Your task to perform on an android device: open chrome privacy settings Image 0: 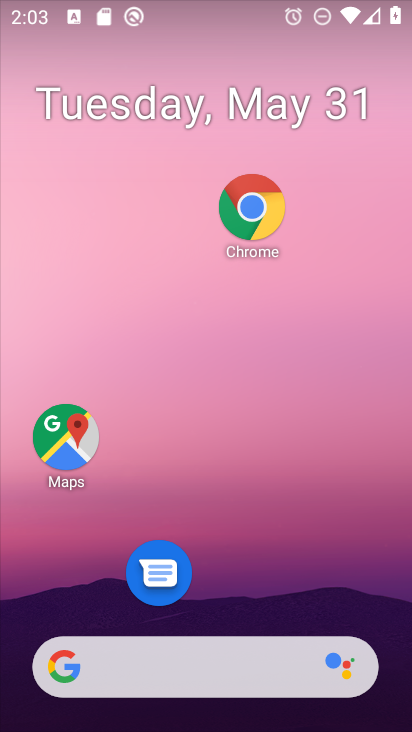
Step 0: drag from (238, 661) to (239, 161)
Your task to perform on an android device: open chrome privacy settings Image 1: 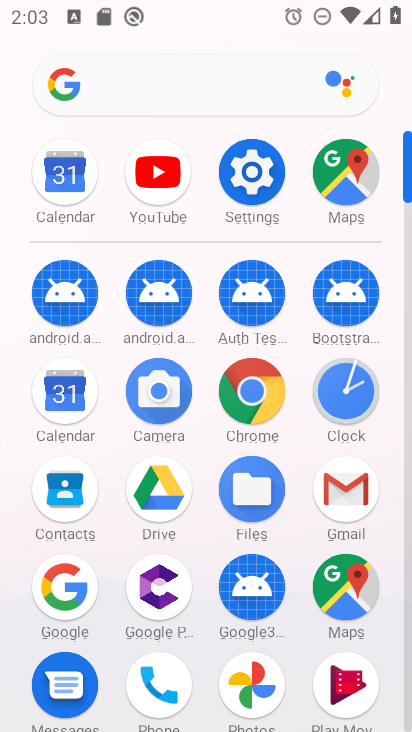
Step 1: click (257, 398)
Your task to perform on an android device: open chrome privacy settings Image 2: 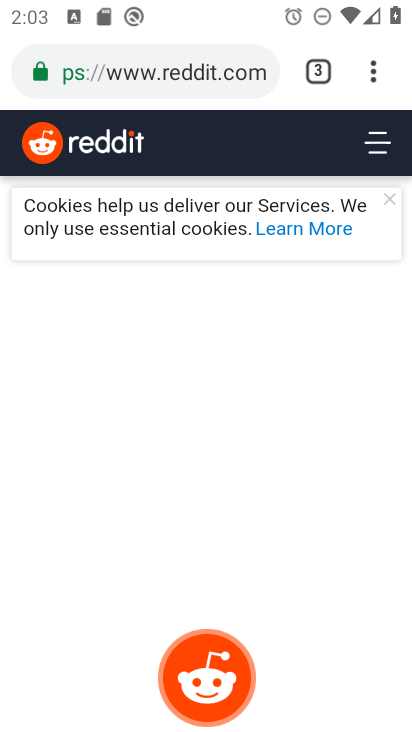
Step 2: click (383, 75)
Your task to perform on an android device: open chrome privacy settings Image 3: 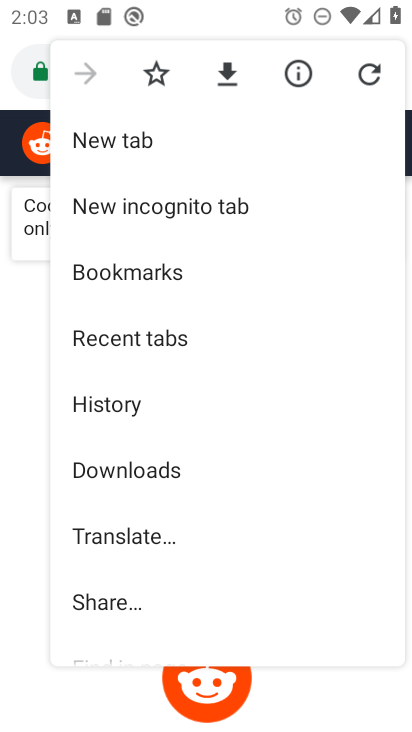
Step 3: drag from (235, 491) to (263, 339)
Your task to perform on an android device: open chrome privacy settings Image 4: 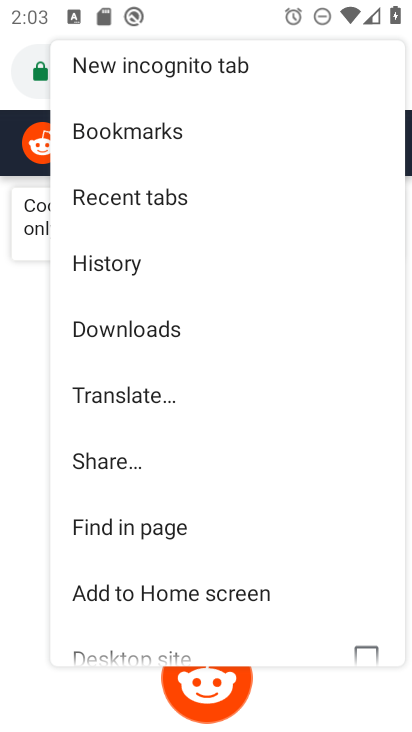
Step 4: drag from (229, 467) to (235, 368)
Your task to perform on an android device: open chrome privacy settings Image 5: 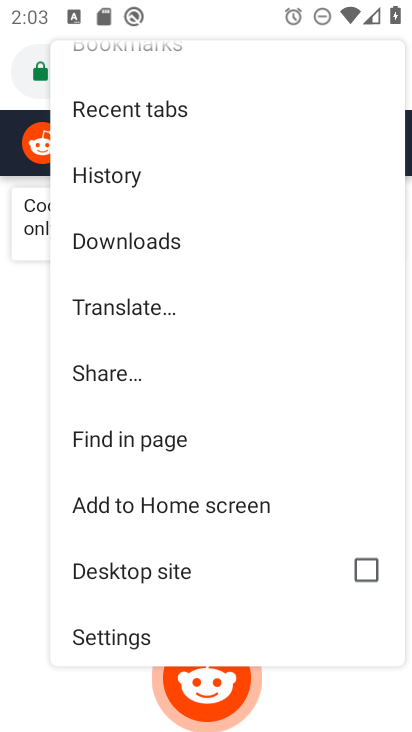
Step 5: drag from (159, 633) to (225, 400)
Your task to perform on an android device: open chrome privacy settings Image 6: 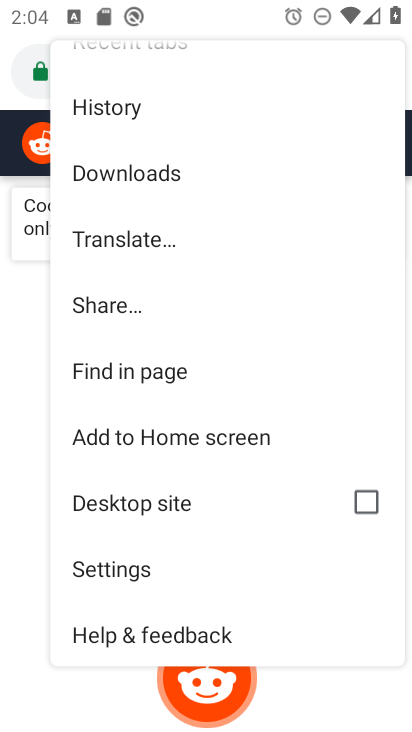
Step 6: click (130, 564)
Your task to perform on an android device: open chrome privacy settings Image 7: 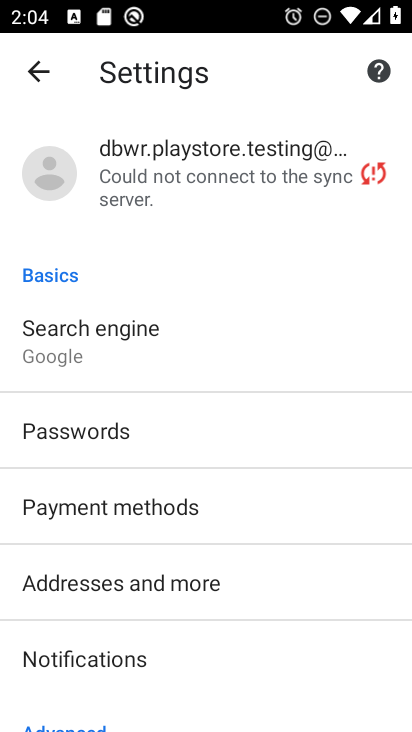
Step 7: drag from (132, 551) to (129, 267)
Your task to perform on an android device: open chrome privacy settings Image 8: 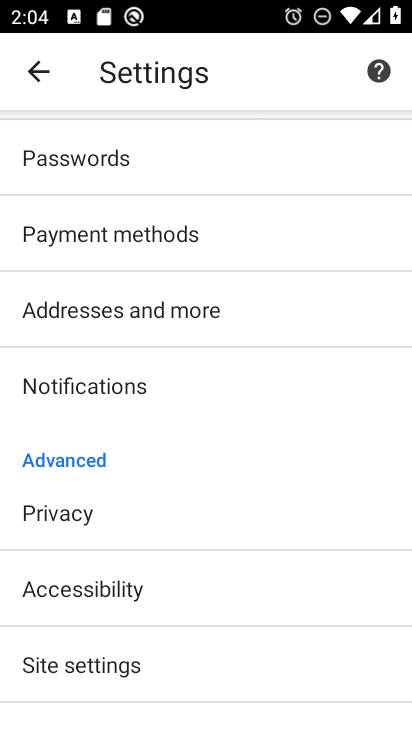
Step 8: click (86, 514)
Your task to perform on an android device: open chrome privacy settings Image 9: 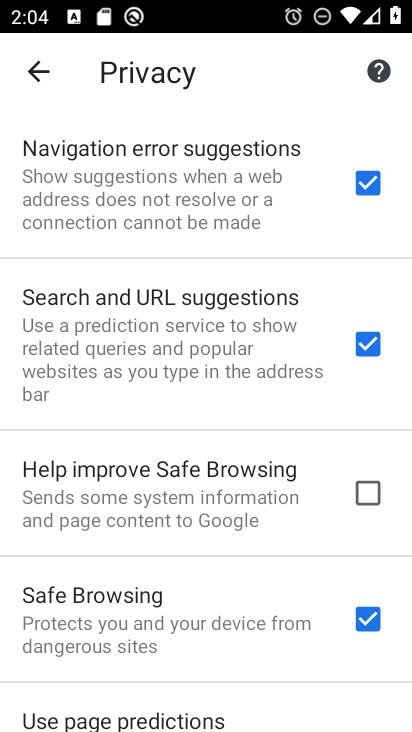
Step 9: task complete